Your task to perform on an android device: Open accessibility settings Image 0: 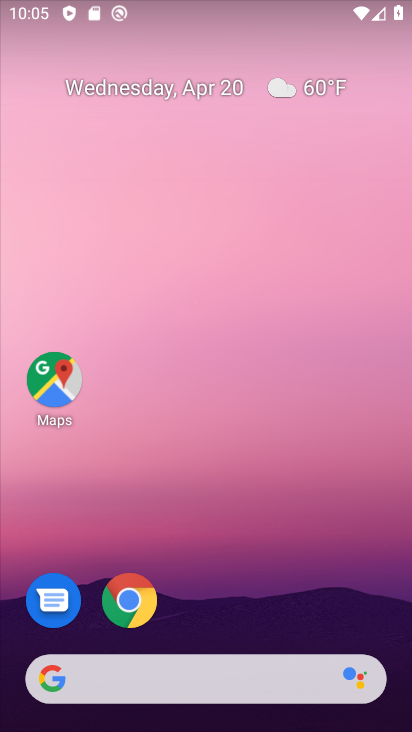
Step 0: drag from (309, 276) to (323, 188)
Your task to perform on an android device: Open accessibility settings Image 1: 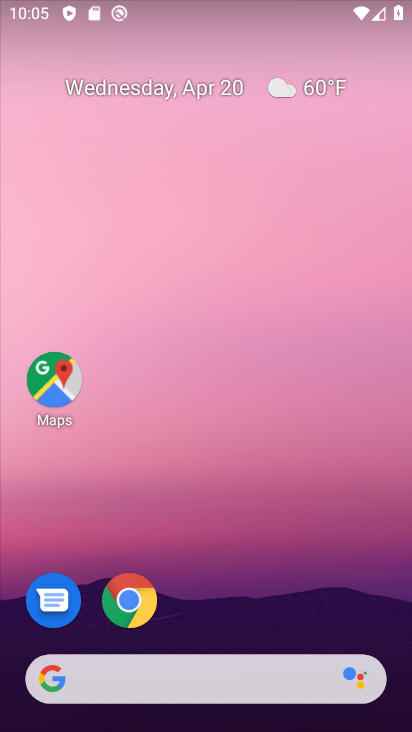
Step 1: drag from (226, 634) to (265, 242)
Your task to perform on an android device: Open accessibility settings Image 2: 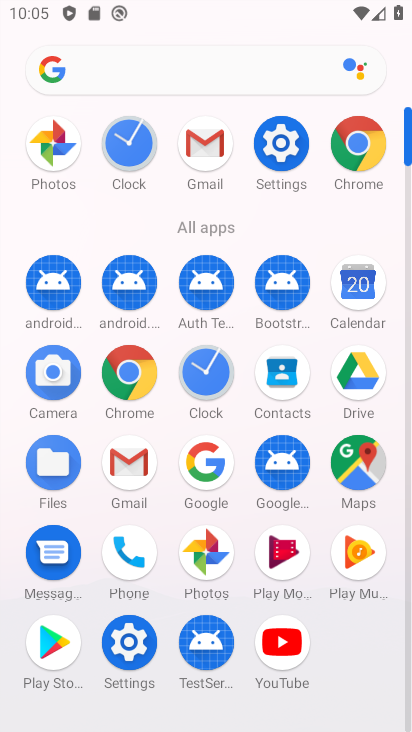
Step 2: click (277, 129)
Your task to perform on an android device: Open accessibility settings Image 3: 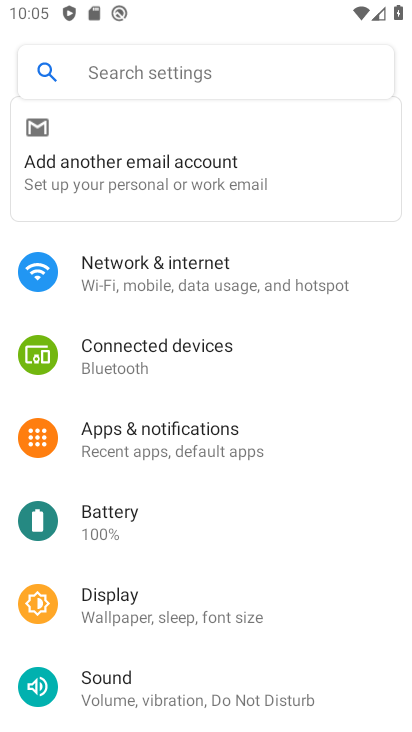
Step 3: drag from (219, 614) to (261, 211)
Your task to perform on an android device: Open accessibility settings Image 4: 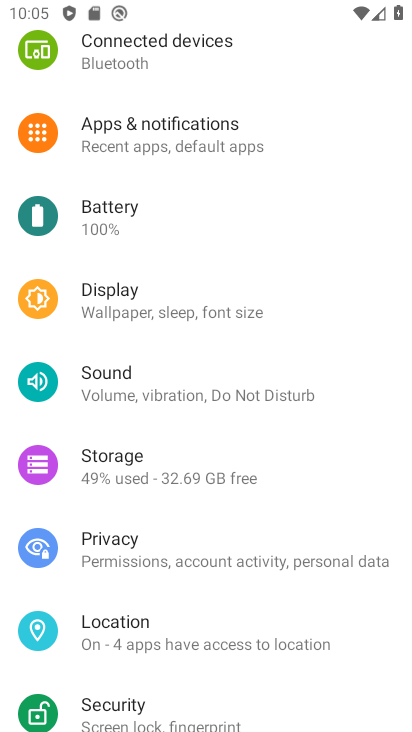
Step 4: drag from (221, 527) to (281, 200)
Your task to perform on an android device: Open accessibility settings Image 5: 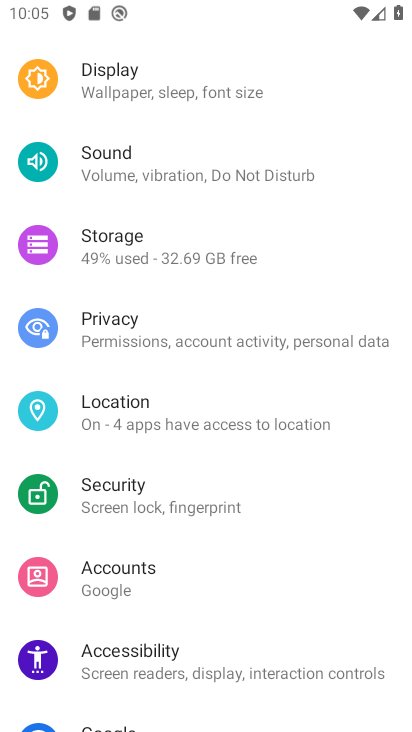
Step 5: click (159, 648)
Your task to perform on an android device: Open accessibility settings Image 6: 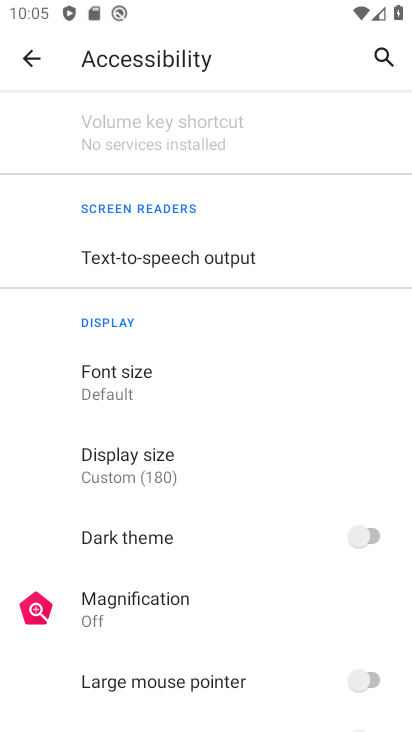
Step 6: task complete